Your task to perform on an android device: Go to eBay Image 0: 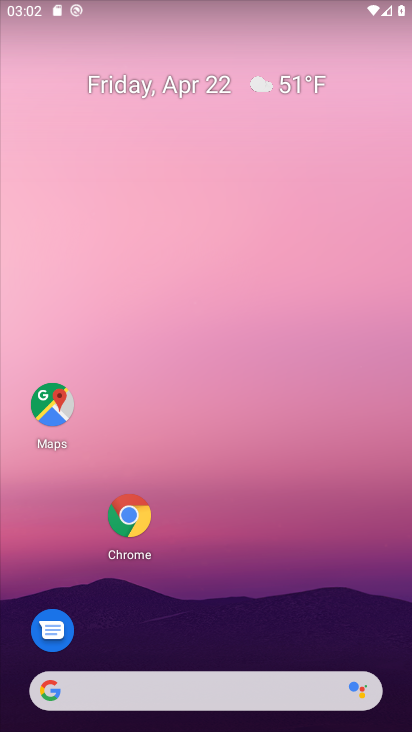
Step 0: drag from (330, 340) to (321, 223)
Your task to perform on an android device: Go to eBay Image 1: 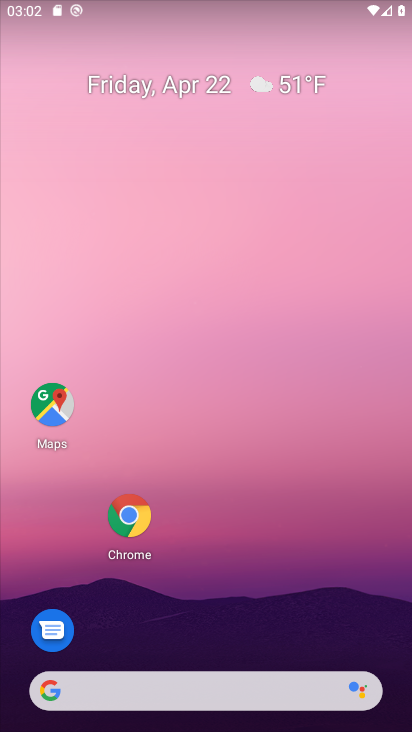
Step 1: click (352, 47)
Your task to perform on an android device: Go to eBay Image 2: 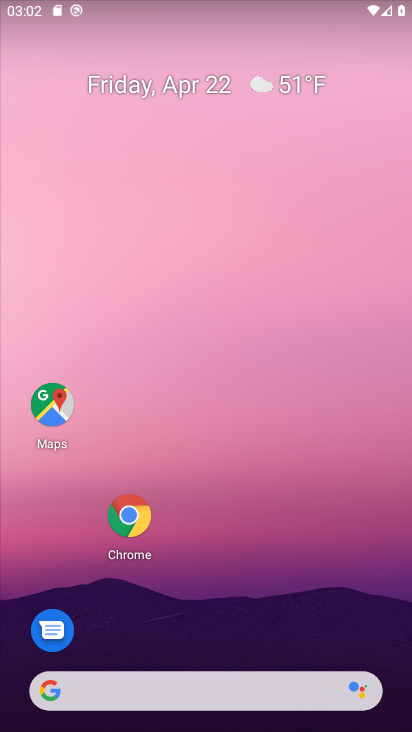
Step 2: click (380, 373)
Your task to perform on an android device: Go to eBay Image 3: 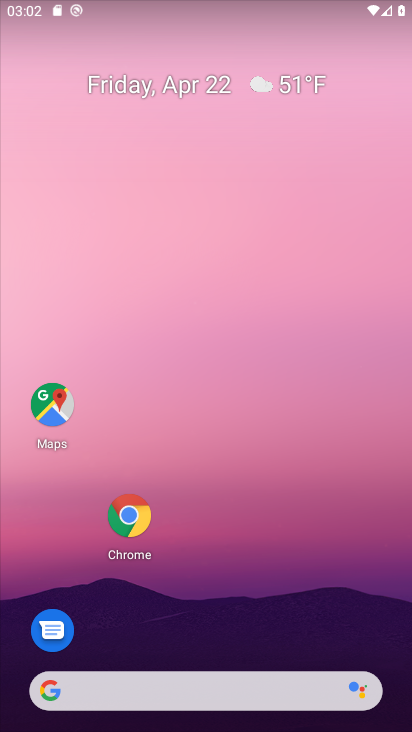
Step 3: drag from (344, 619) to (316, 114)
Your task to perform on an android device: Go to eBay Image 4: 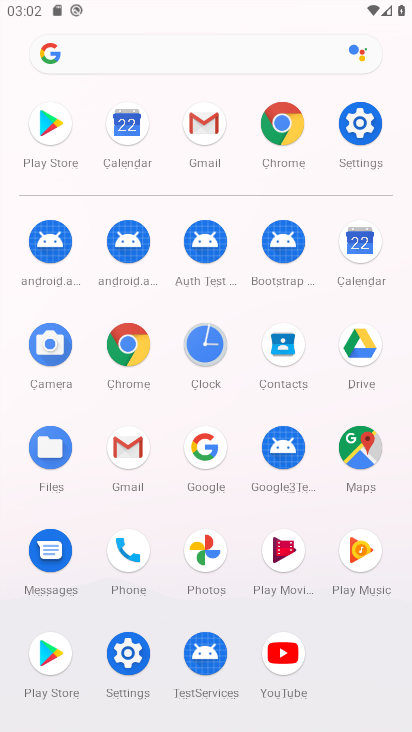
Step 4: click (294, 117)
Your task to perform on an android device: Go to eBay Image 5: 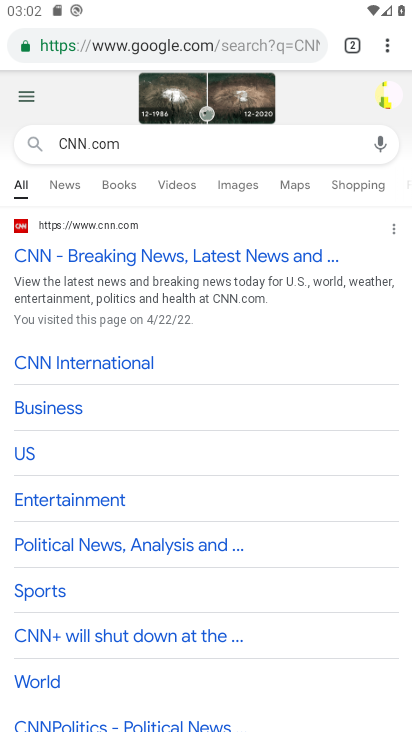
Step 5: click (314, 41)
Your task to perform on an android device: Go to eBay Image 6: 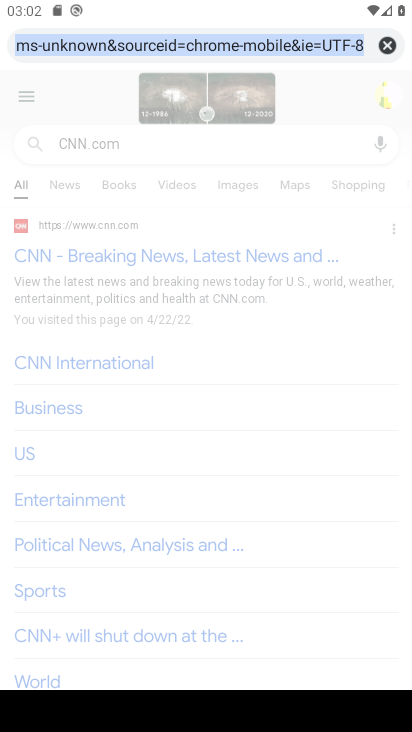
Step 6: click (383, 43)
Your task to perform on an android device: Go to eBay Image 7: 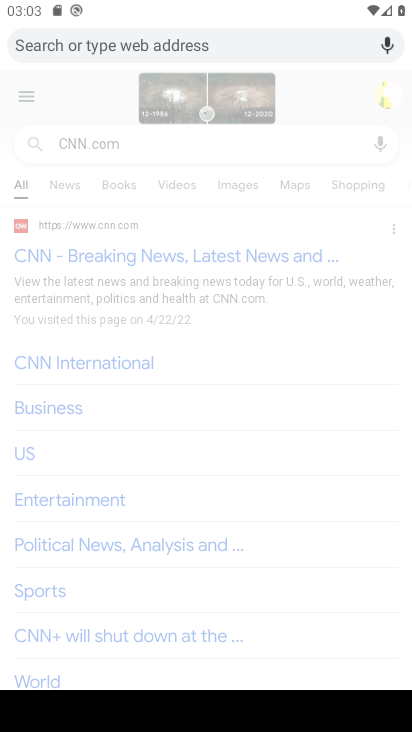
Step 7: type "eBay"
Your task to perform on an android device: Go to eBay Image 8: 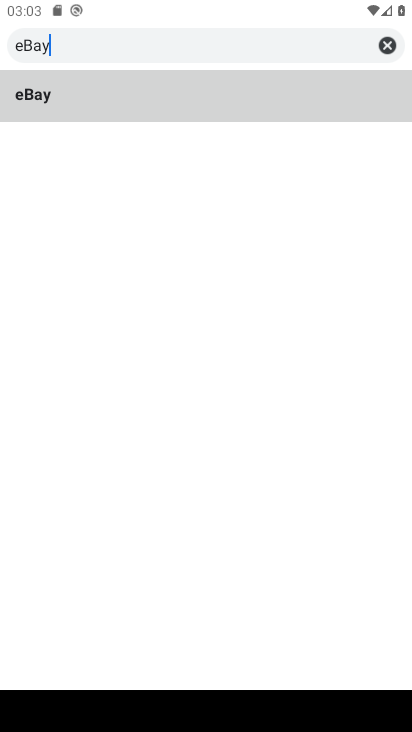
Step 8: click (77, 97)
Your task to perform on an android device: Go to eBay Image 9: 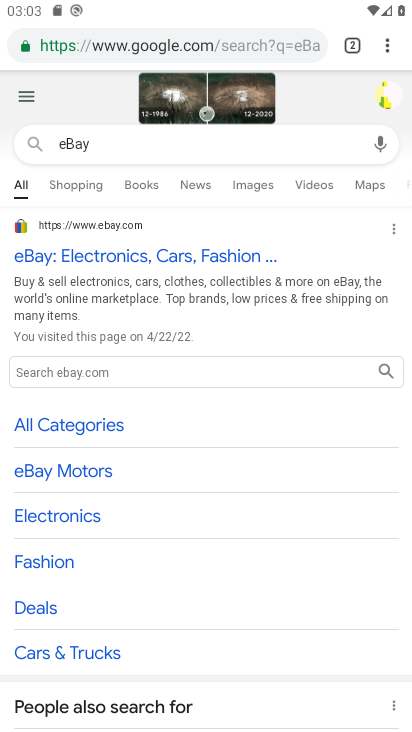
Step 9: task complete